Your task to perform on an android device: Open Google Image 0: 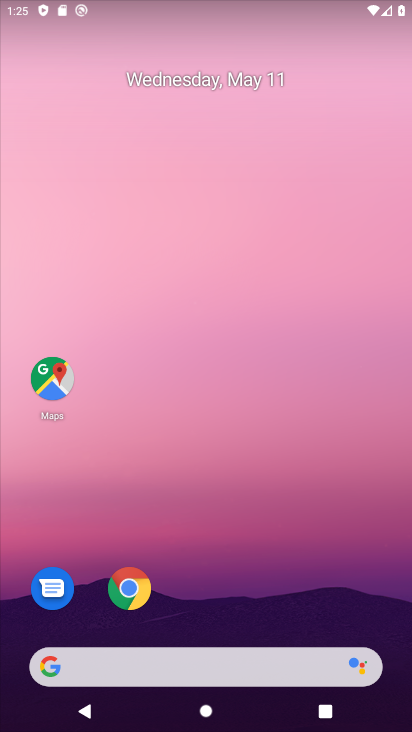
Step 0: drag from (186, 628) to (253, 131)
Your task to perform on an android device: Open Google Image 1: 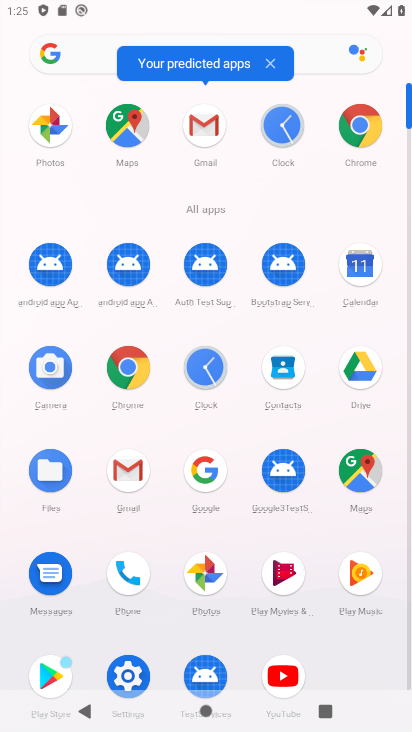
Step 1: click (193, 474)
Your task to perform on an android device: Open Google Image 2: 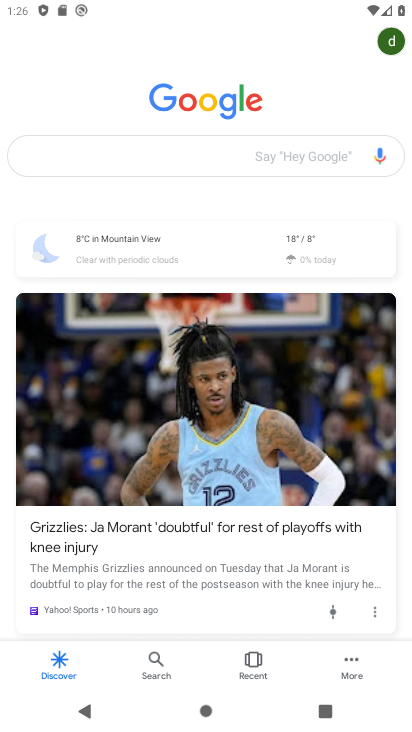
Step 2: task complete